Your task to perform on an android device: turn vacation reply on in the gmail app Image 0: 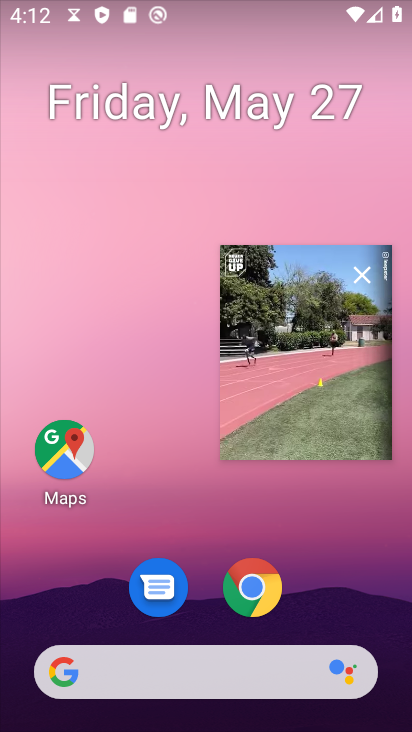
Step 0: click (356, 264)
Your task to perform on an android device: turn vacation reply on in the gmail app Image 1: 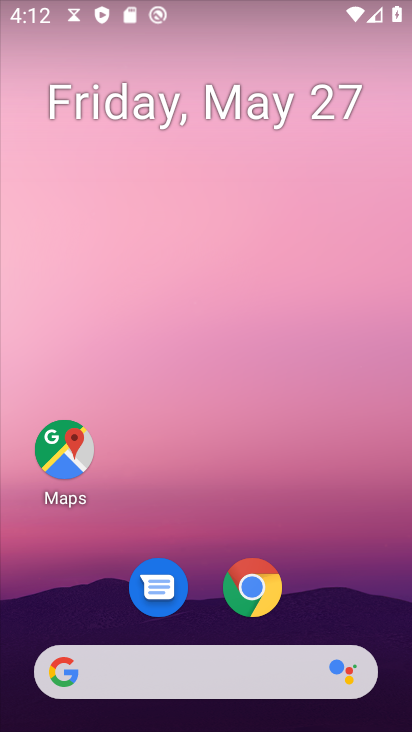
Step 1: drag from (326, 522) to (240, 38)
Your task to perform on an android device: turn vacation reply on in the gmail app Image 2: 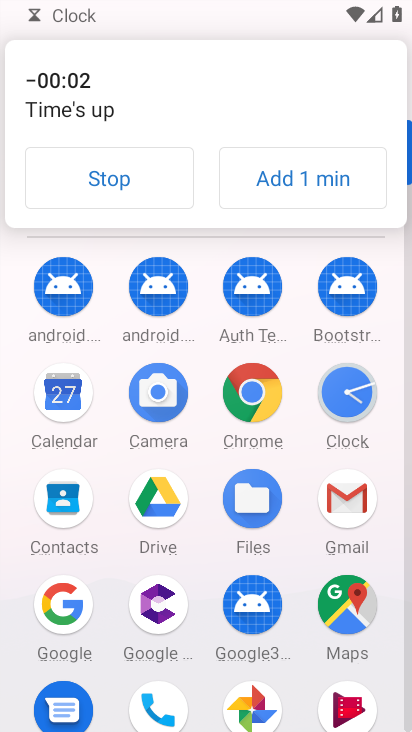
Step 2: click (127, 182)
Your task to perform on an android device: turn vacation reply on in the gmail app Image 3: 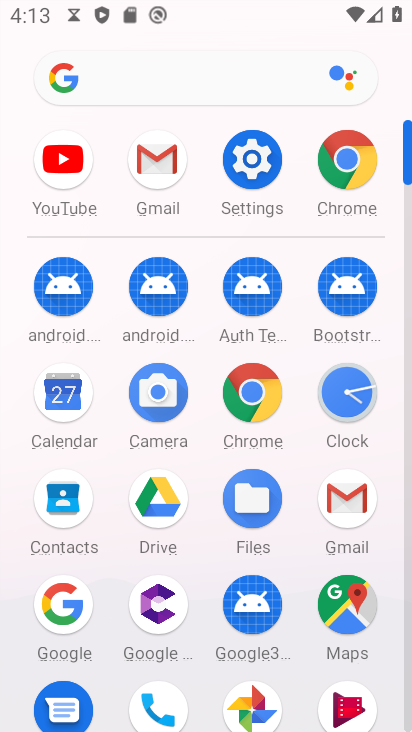
Step 3: click (353, 491)
Your task to perform on an android device: turn vacation reply on in the gmail app Image 4: 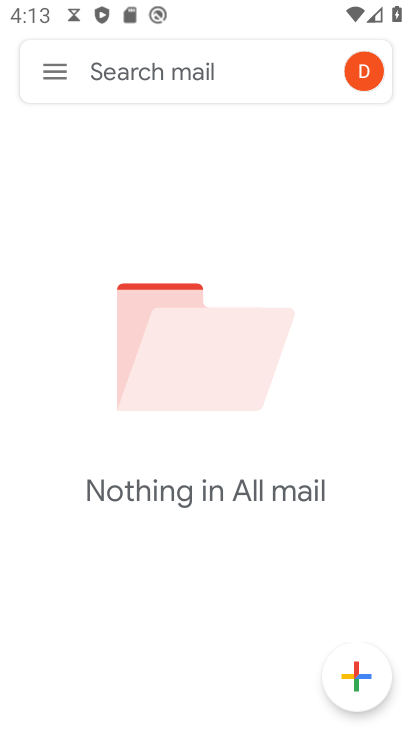
Step 4: click (67, 50)
Your task to perform on an android device: turn vacation reply on in the gmail app Image 5: 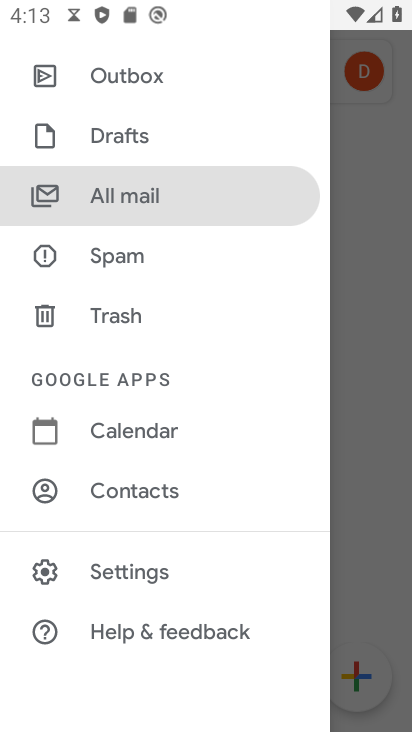
Step 5: click (132, 557)
Your task to perform on an android device: turn vacation reply on in the gmail app Image 6: 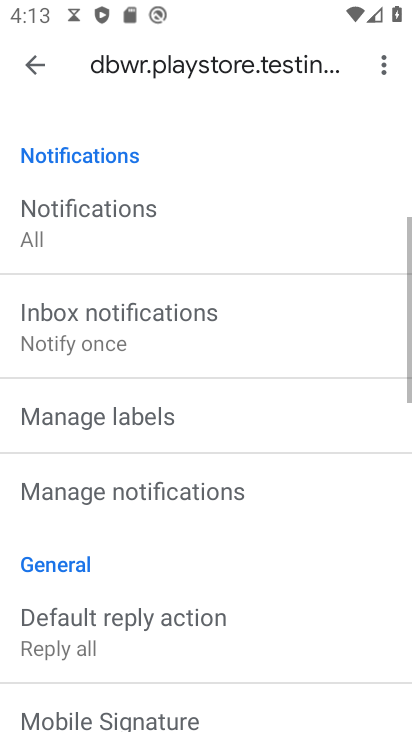
Step 6: task complete